Your task to perform on an android device: open a bookmark in the chrome app Image 0: 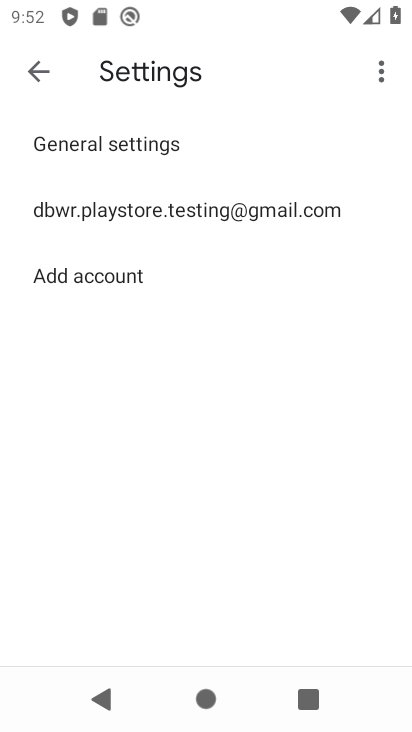
Step 0: press home button
Your task to perform on an android device: open a bookmark in the chrome app Image 1: 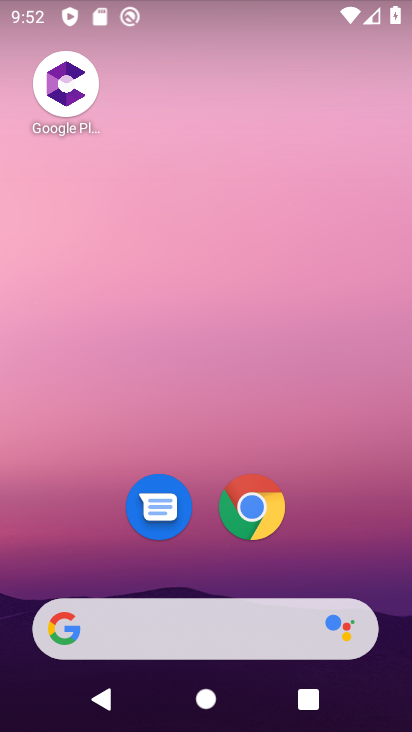
Step 1: click (270, 514)
Your task to perform on an android device: open a bookmark in the chrome app Image 2: 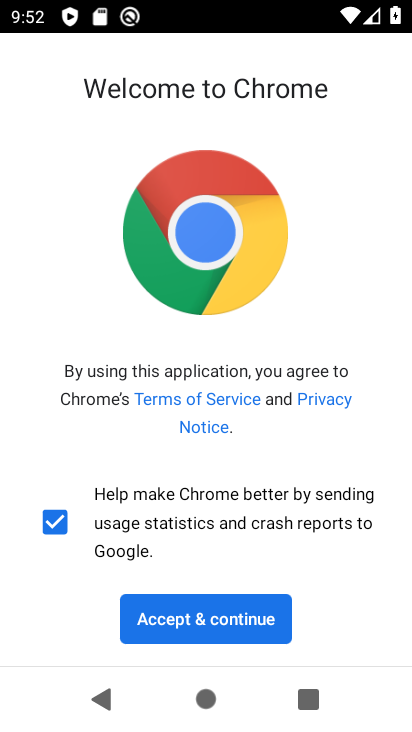
Step 2: click (154, 622)
Your task to perform on an android device: open a bookmark in the chrome app Image 3: 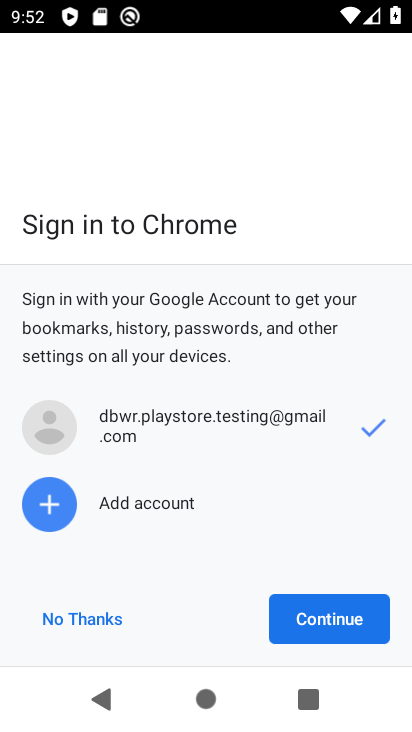
Step 3: click (353, 632)
Your task to perform on an android device: open a bookmark in the chrome app Image 4: 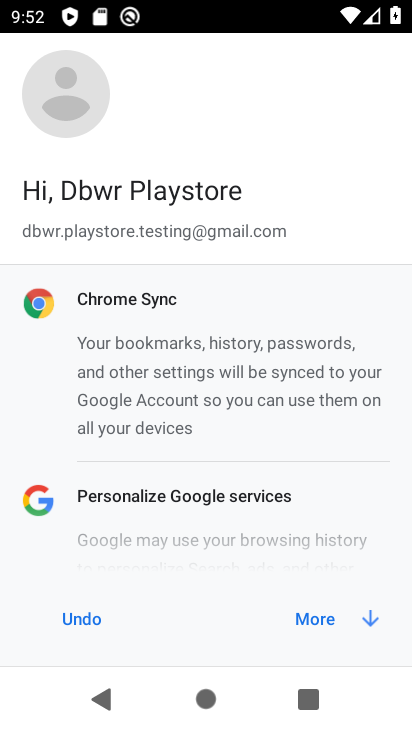
Step 4: click (302, 620)
Your task to perform on an android device: open a bookmark in the chrome app Image 5: 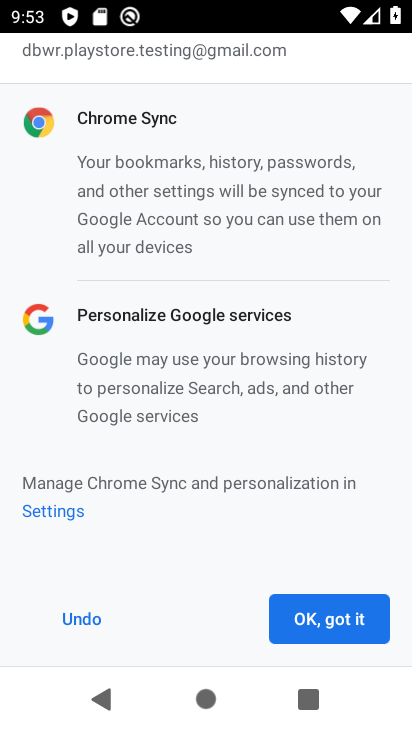
Step 5: click (279, 607)
Your task to perform on an android device: open a bookmark in the chrome app Image 6: 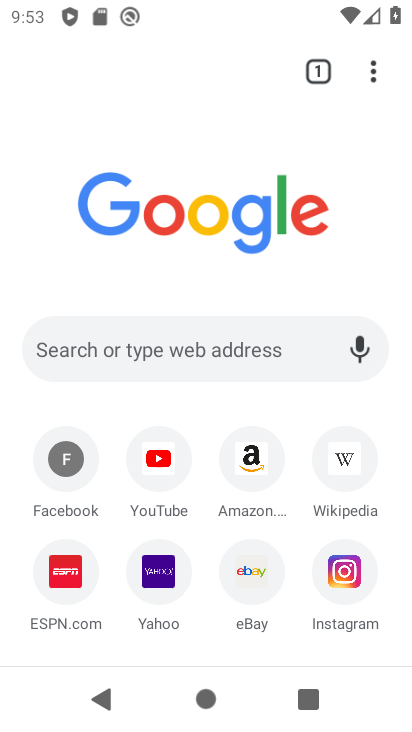
Step 6: click (370, 71)
Your task to perform on an android device: open a bookmark in the chrome app Image 7: 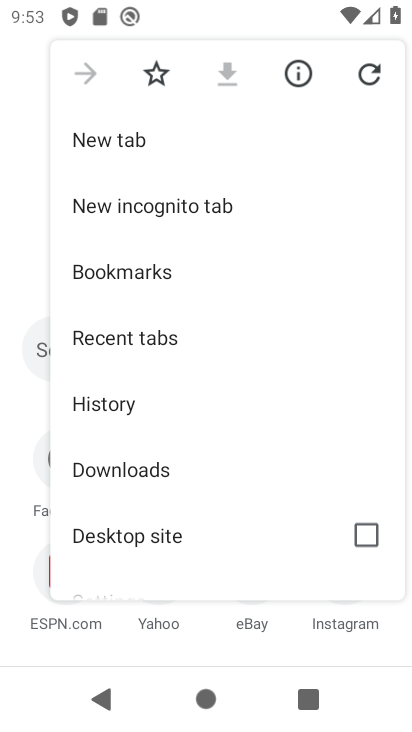
Step 7: drag from (258, 399) to (261, 318)
Your task to perform on an android device: open a bookmark in the chrome app Image 8: 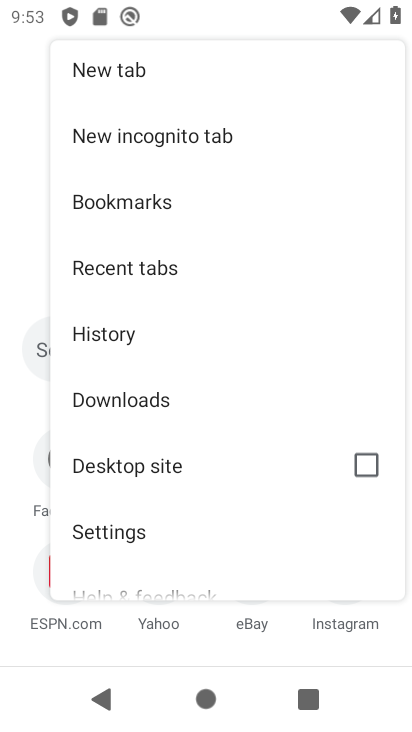
Step 8: click (111, 207)
Your task to perform on an android device: open a bookmark in the chrome app Image 9: 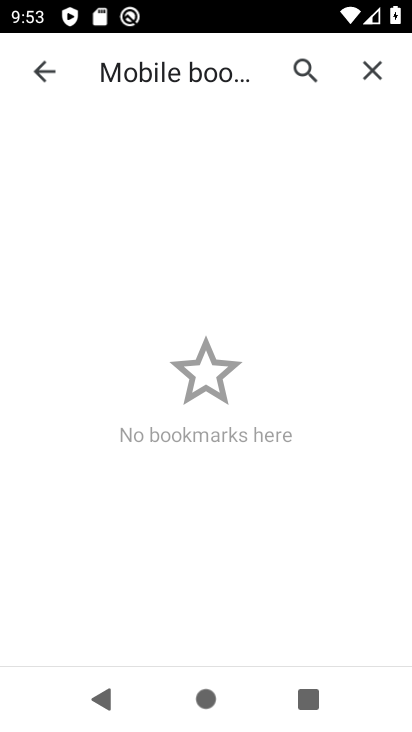
Step 9: task complete